Your task to perform on an android device: View the shopping cart on newegg. Add "logitech g903" to the cart on newegg Image 0: 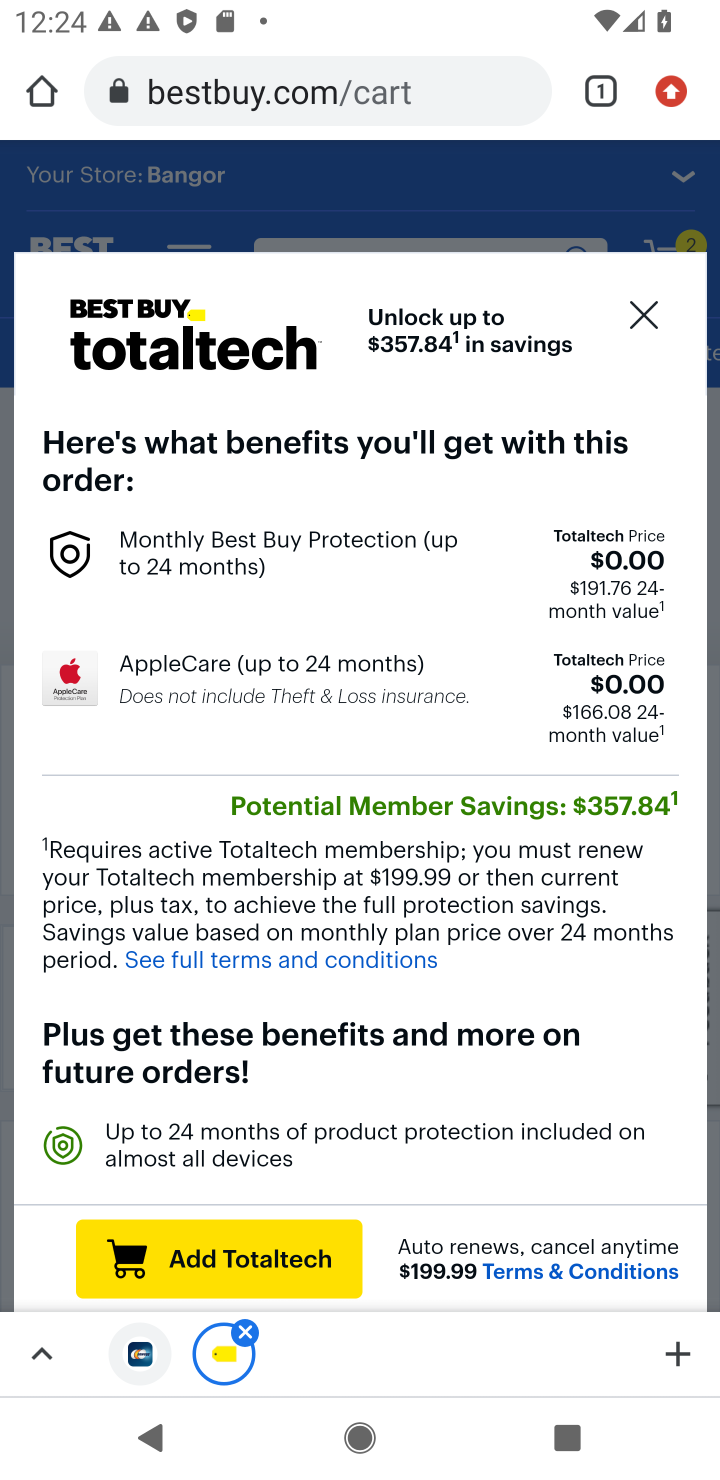
Step 0: click (324, 92)
Your task to perform on an android device: View the shopping cart on newegg. Add "logitech g903" to the cart on newegg Image 1: 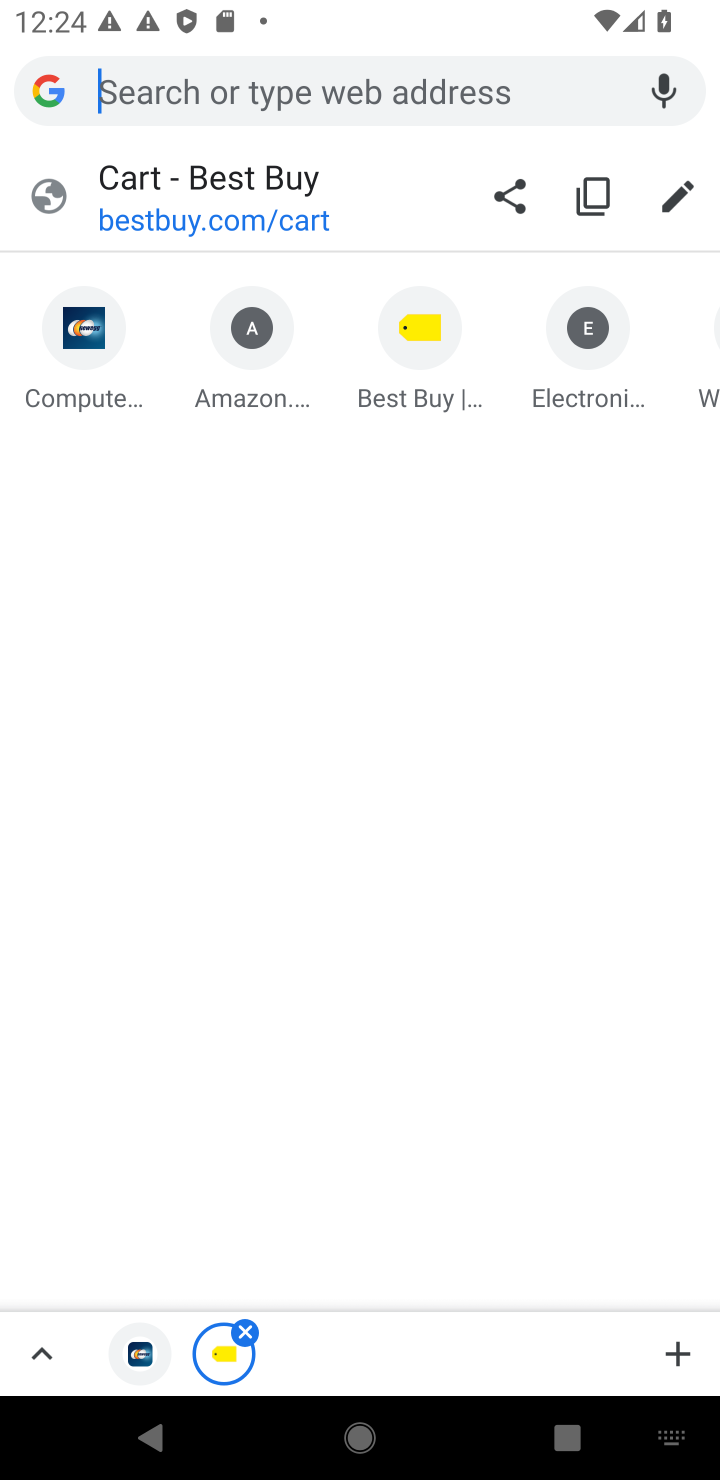
Step 1: click (113, 367)
Your task to perform on an android device: View the shopping cart on newegg. Add "logitech g903" to the cart on newegg Image 2: 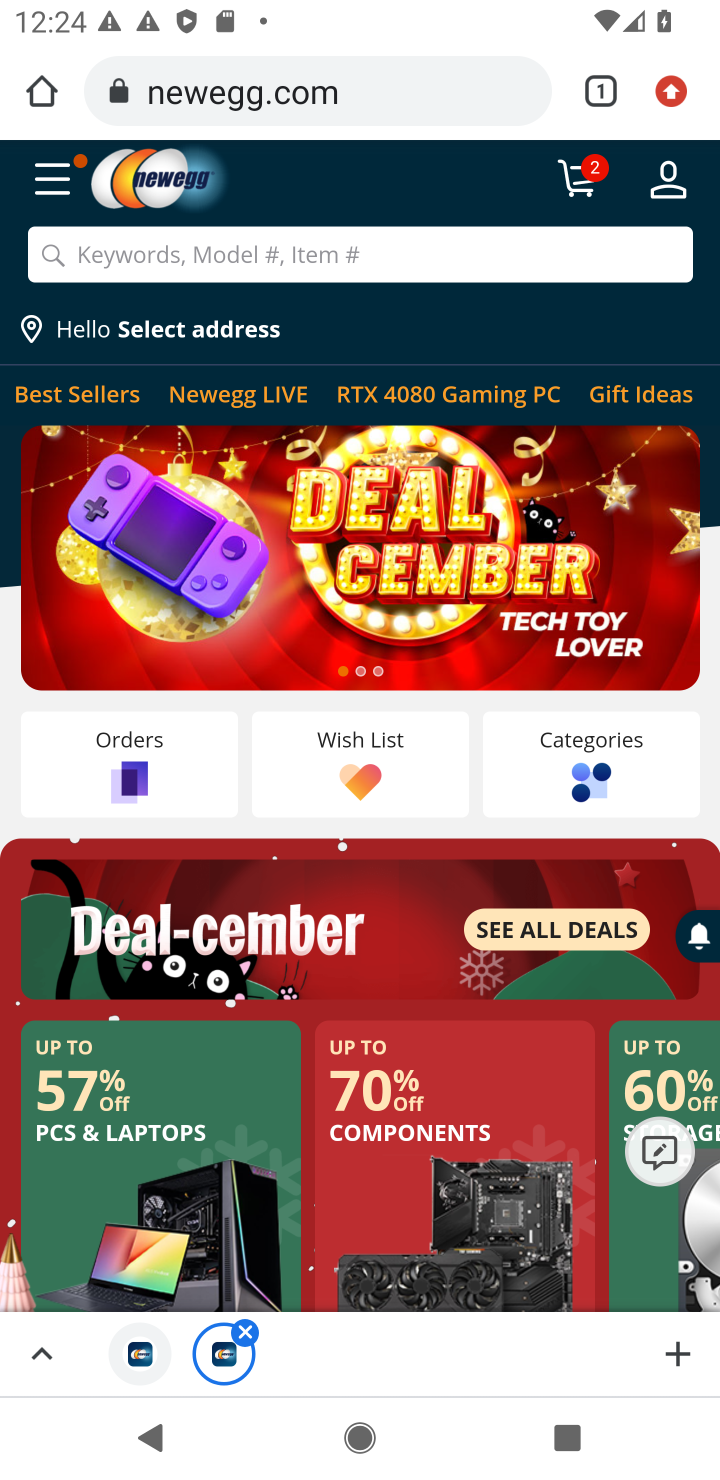
Step 2: click (579, 185)
Your task to perform on an android device: View the shopping cart on newegg. Add "logitech g903" to the cart on newegg Image 3: 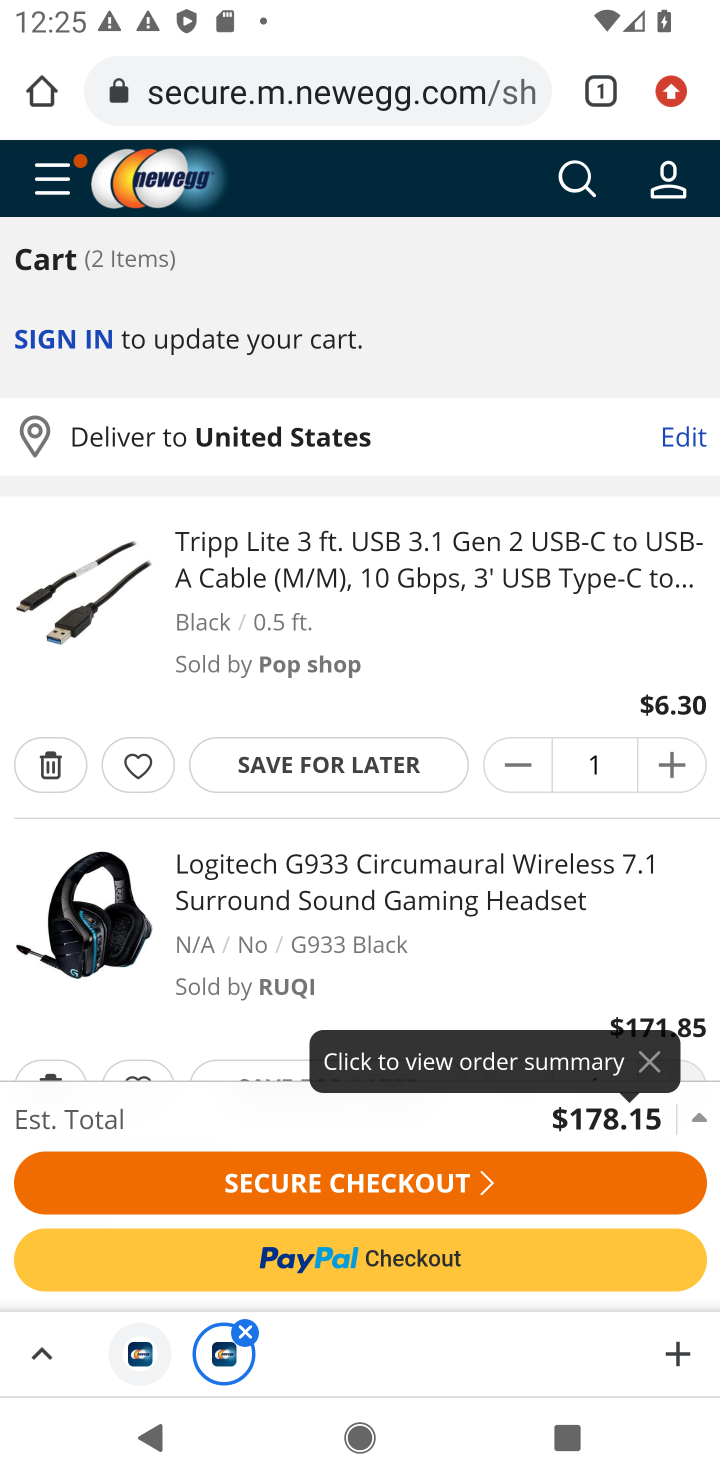
Step 3: click (567, 174)
Your task to perform on an android device: View the shopping cart on newegg. Add "logitech g903" to the cart on newegg Image 4: 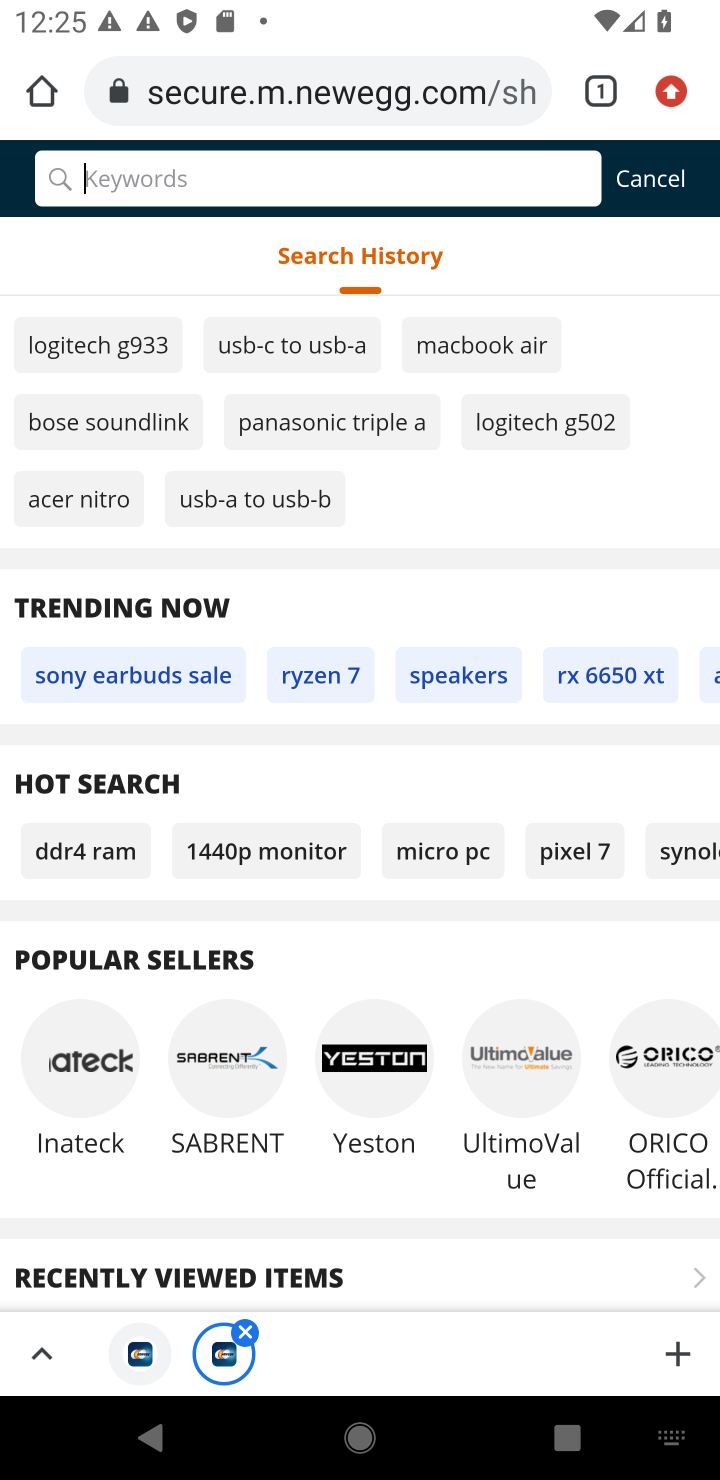
Step 4: type "logitech g903"
Your task to perform on an android device: View the shopping cart on newegg. Add "logitech g903" to the cart on newegg Image 5: 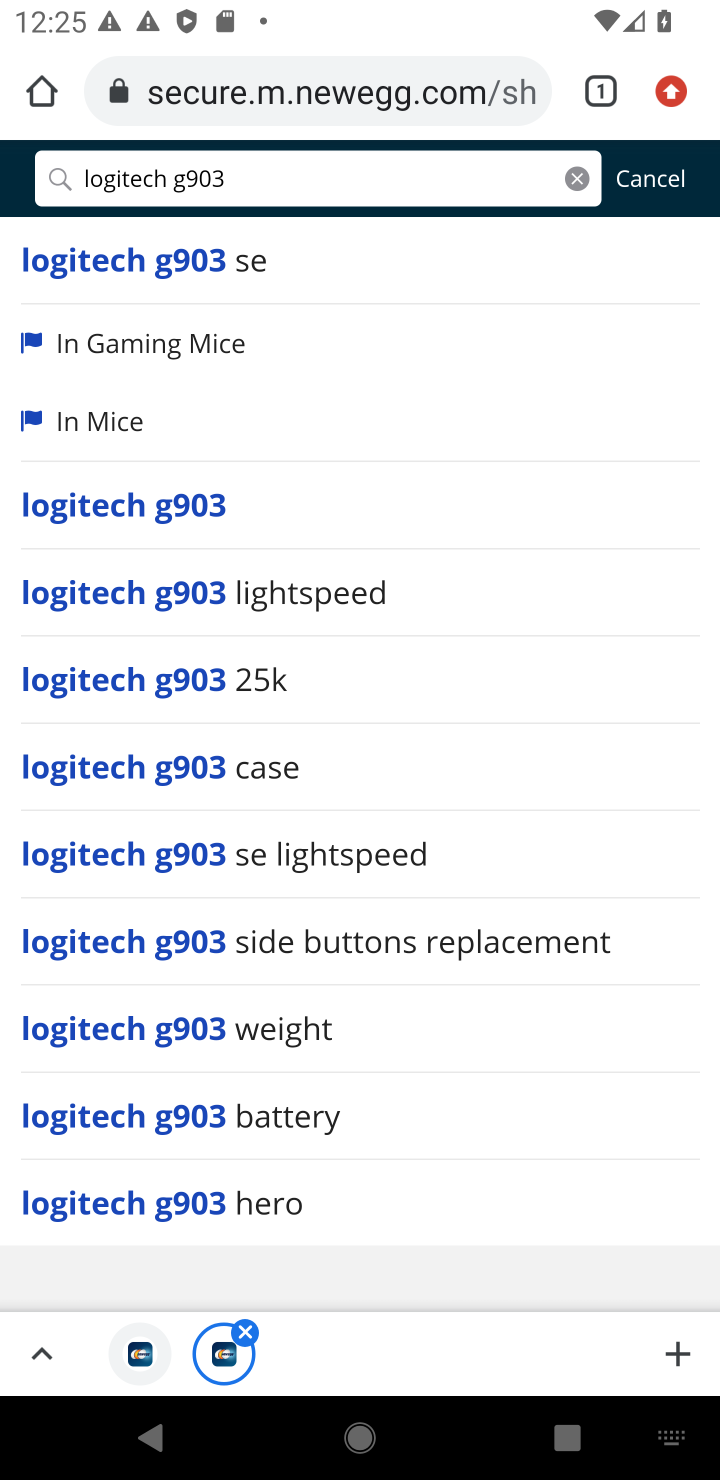
Step 5: click (111, 510)
Your task to perform on an android device: View the shopping cart on newegg. Add "logitech g903" to the cart on newegg Image 6: 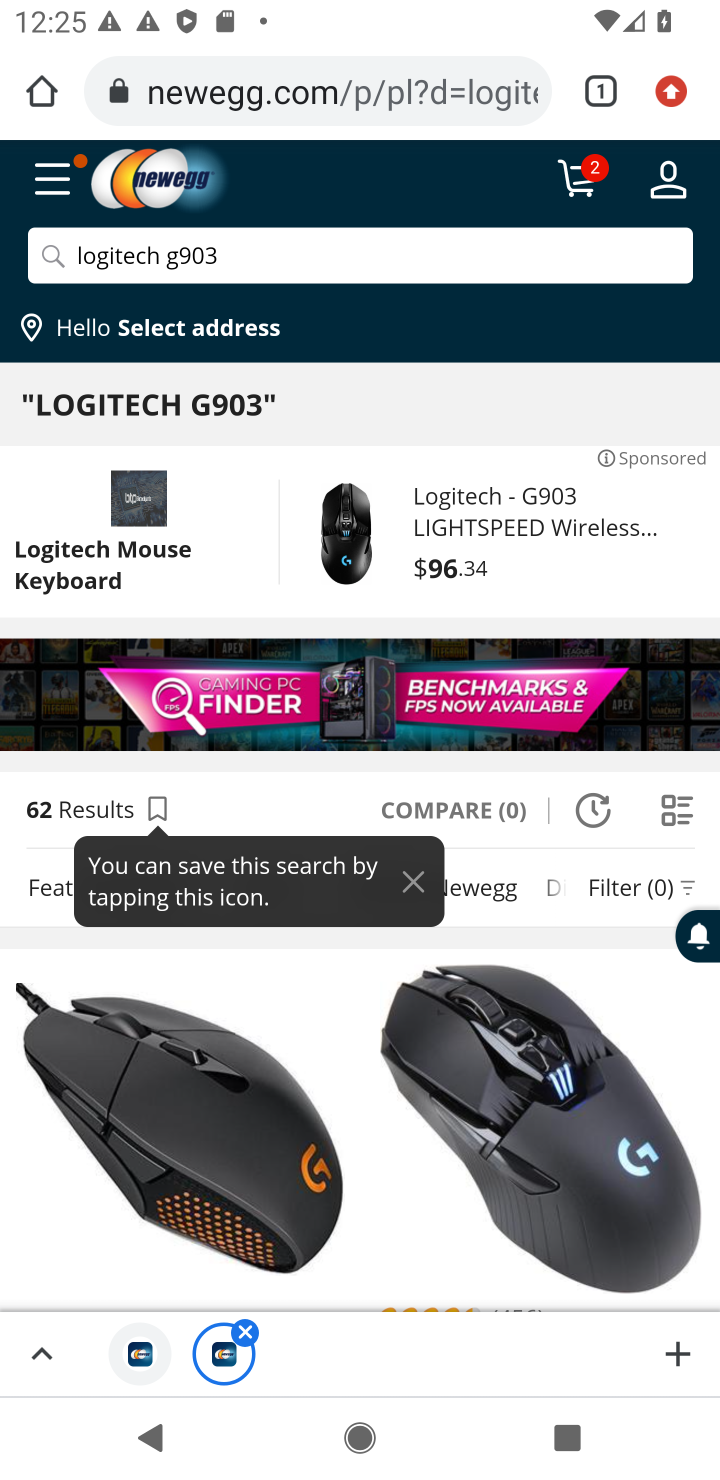
Step 6: drag from (359, 1039) to (311, 468)
Your task to perform on an android device: View the shopping cart on newegg. Add "logitech g903" to the cart on newegg Image 7: 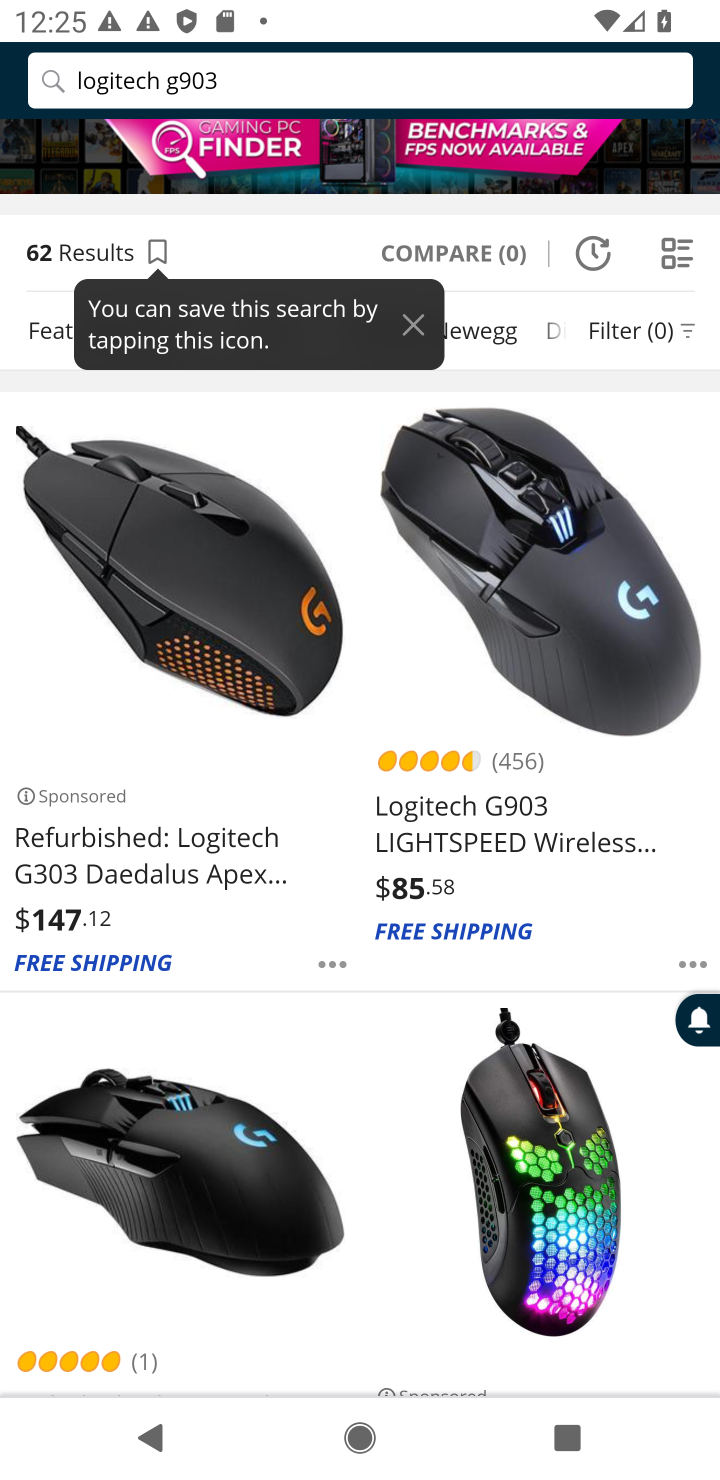
Step 7: click (527, 681)
Your task to perform on an android device: View the shopping cart on newegg. Add "logitech g903" to the cart on newegg Image 8: 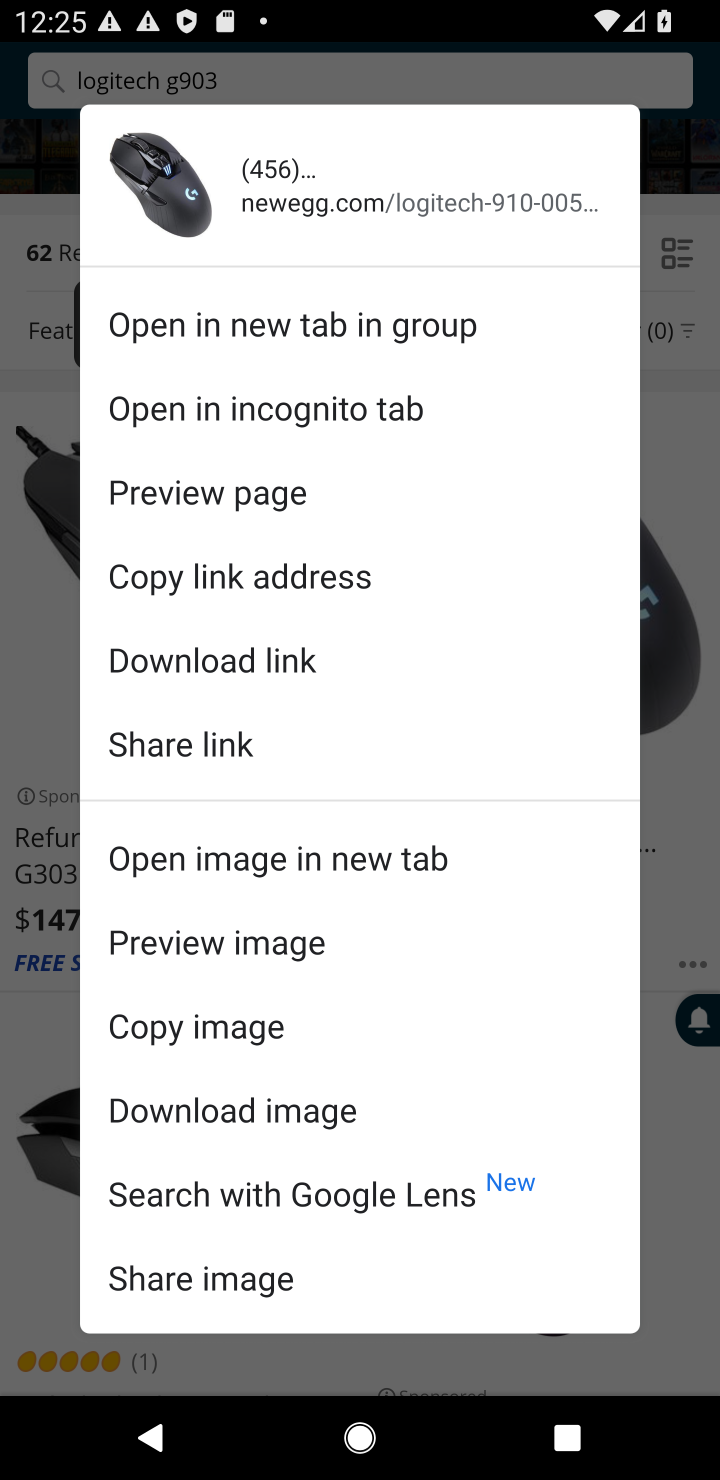
Step 8: click (676, 659)
Your task to perform on an android device: View the shopping cart on newegg. Add "logitech g903" to the cart on newegg Image 9: 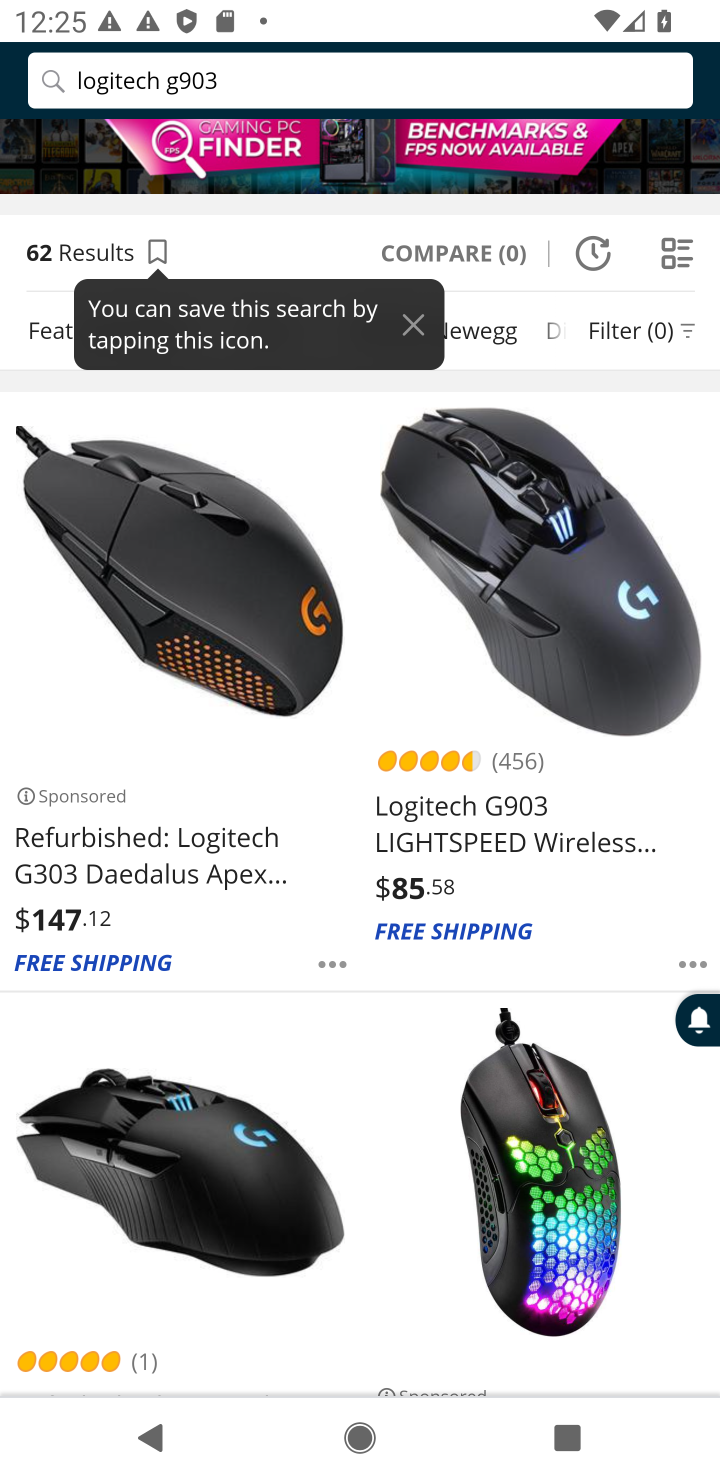
Step 9: click (456, 774)
Your task to perform on an android device: View the shopping cart on newegg. Add "logitech g903" to the cart on newegg Image 10: 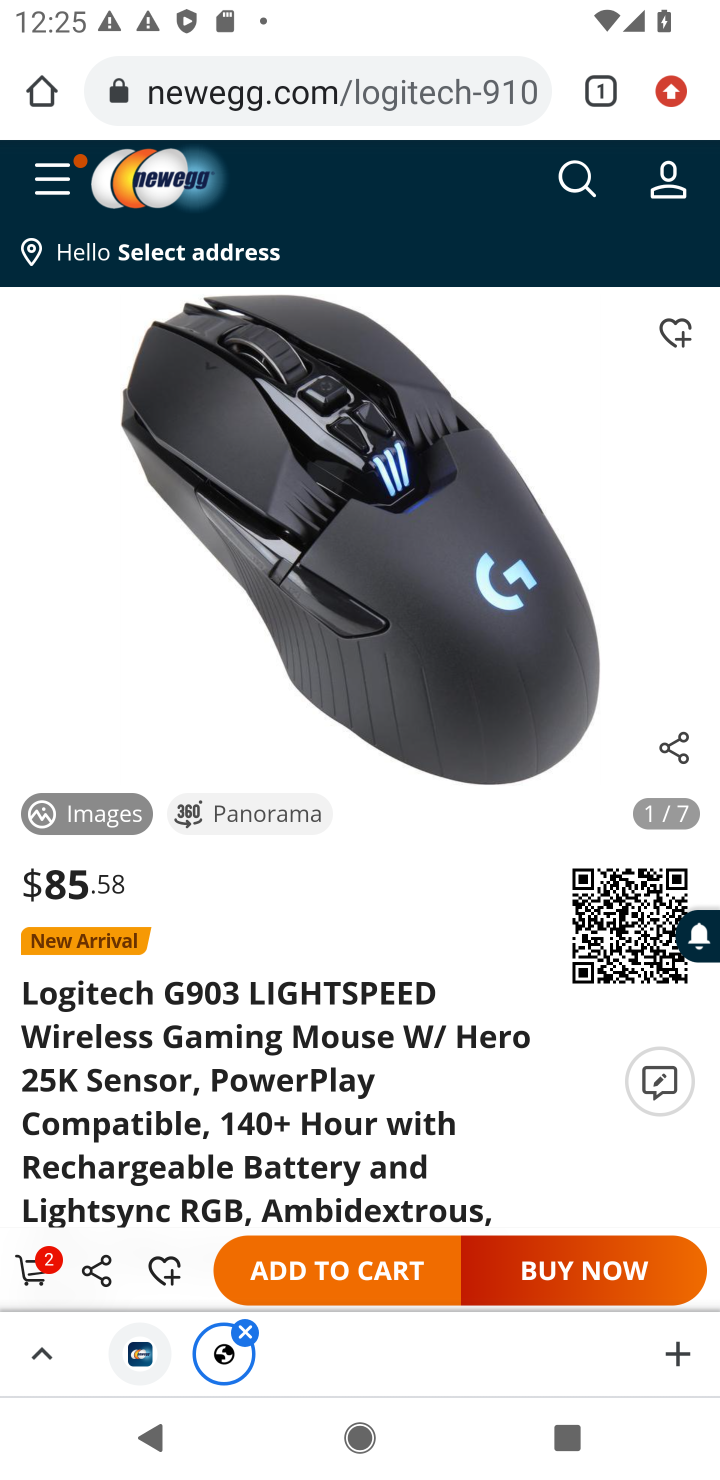
Step 10: click (321, 1270)
Your task to perform on an android device: View the shopping cart on newegg. Add "logitech g903" to the cart on newegg Image 11: 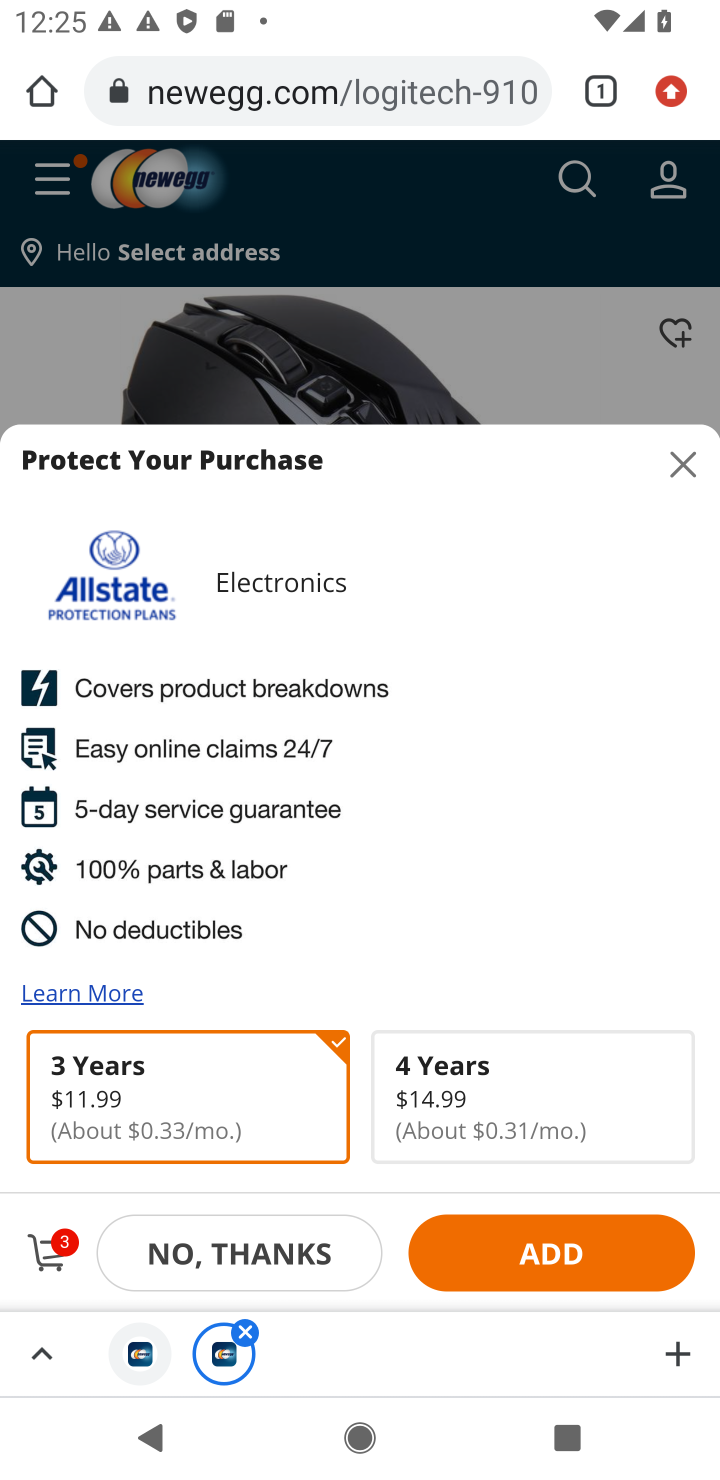
Step 11: task complete